Your task to perform on an android device: Go to Wikipedia Image 0: 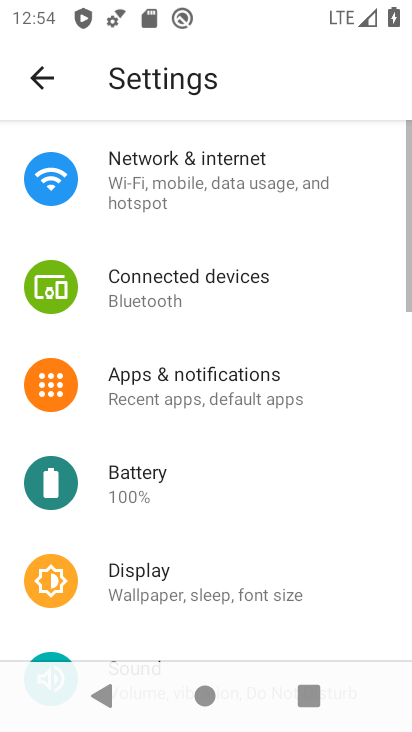
Step 0: press home button
Your task to perform on an android device: Go to Wikipedia Image 1: 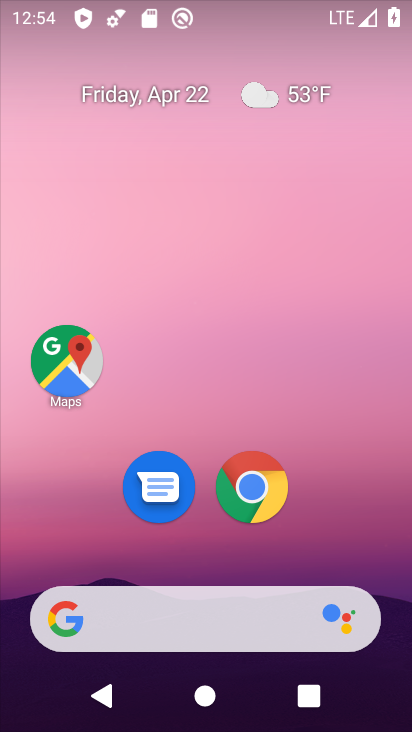
Step 1: click (160, 634)
Your task to perform on an android device: Go to Wikipedia Image 2: 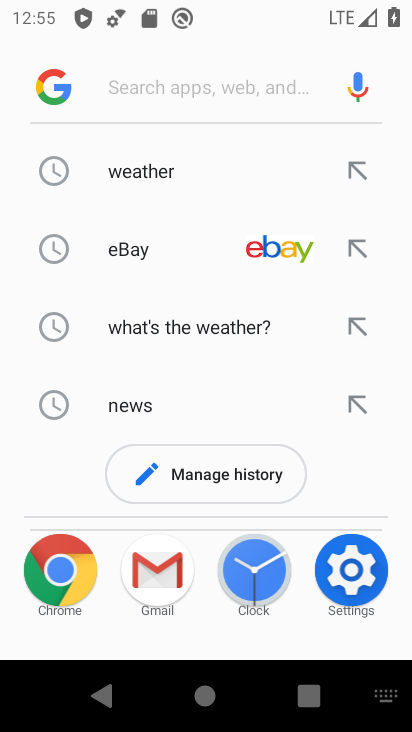
Step 2: type "wikipedia"
Your task to perform on an android device: Go to Wikipedia Image 3: 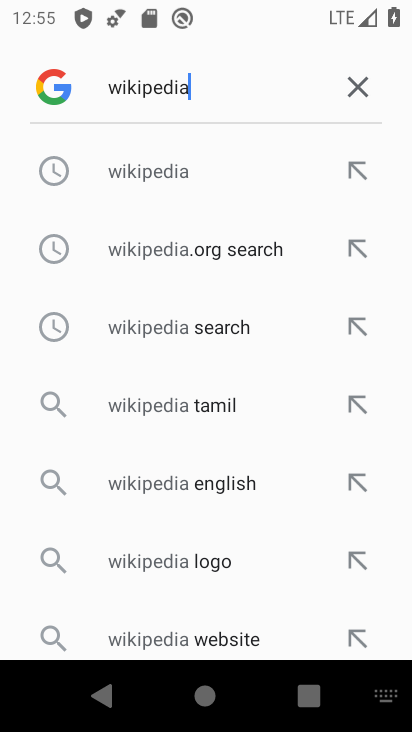
Step 3: click (222, 191)
Your task to perform on an android device: Go to Wikipedia Image 4: 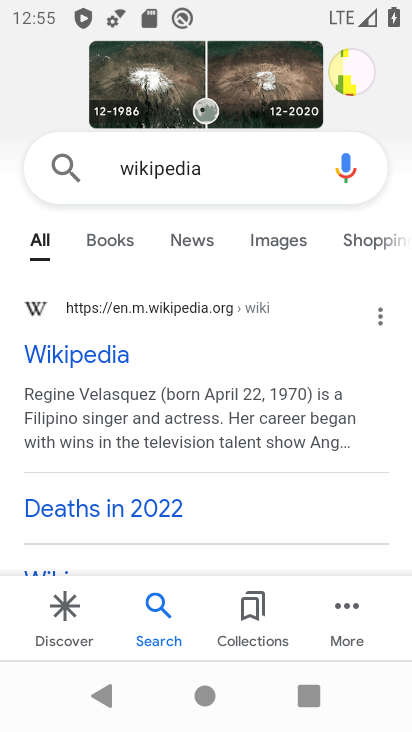
Step 4: task complete